Your task to perform on an android device: Search for Mexican restaurants on Maps Image 0: 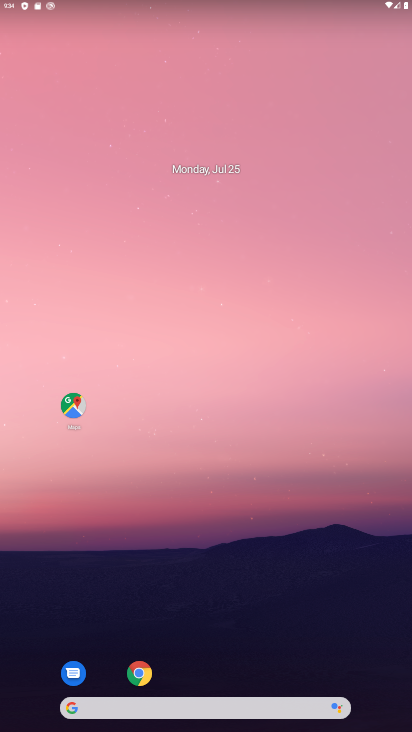
Step 0: drag from (247, 601) to (258, 7)
Your task to perform on an android device: Search for Mexican restaurants on Maps Image 1: 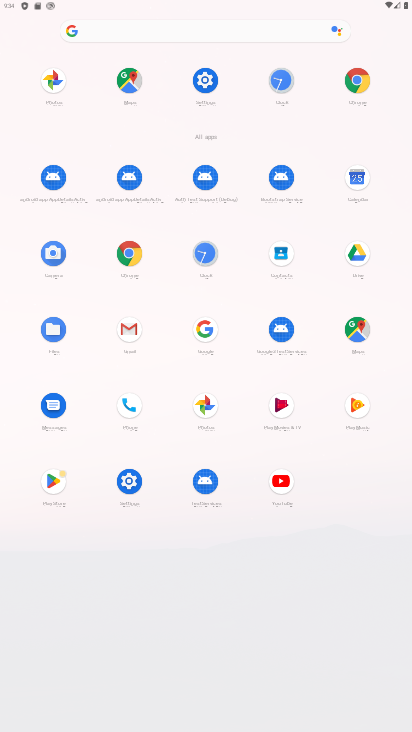
Step 1: click (352, 318)
Your task to perform on an android device: Search for Mexican restaurants on Maps Image 2: 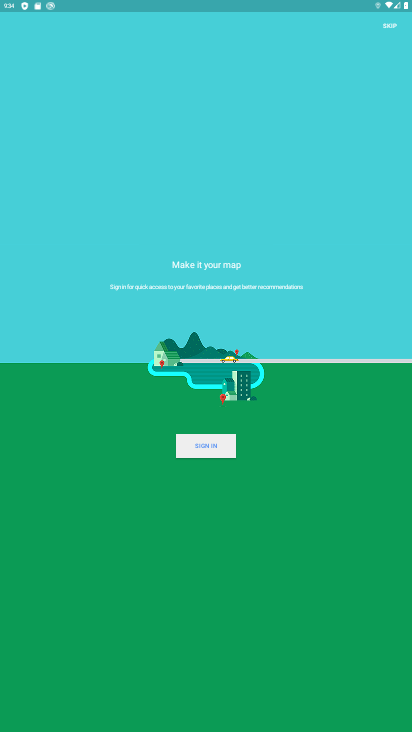
Step 2: task complete